Your task to perform on an android device: change the clock style Image 0: 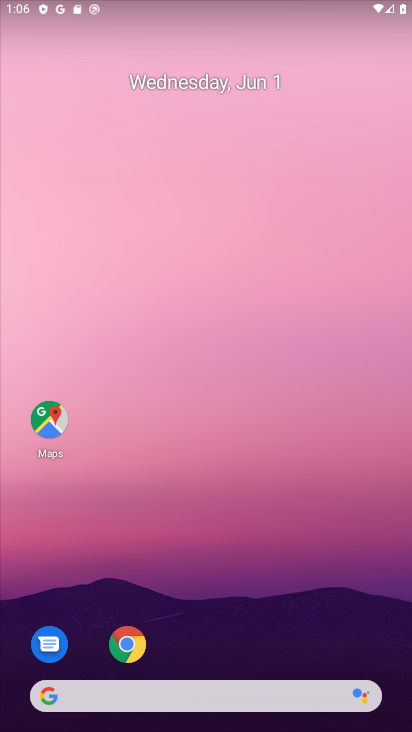
Step 0: press home button
Your task to perform on an android device: change the clock style Image 1: 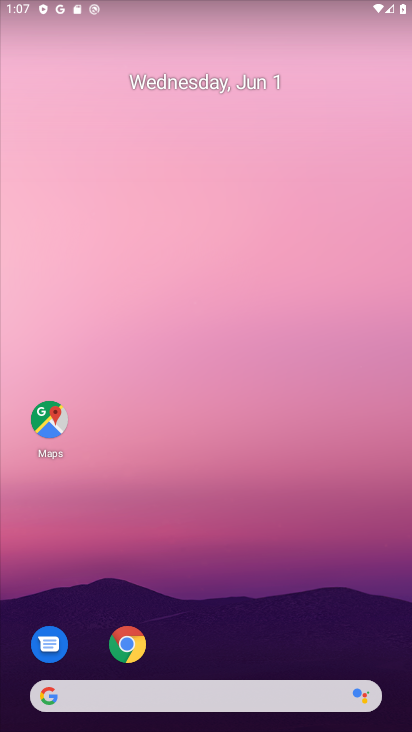
Step 1: drag from (158, 693) to (293, 69)
Your task to perform on an android device: change the clock style Image 2: 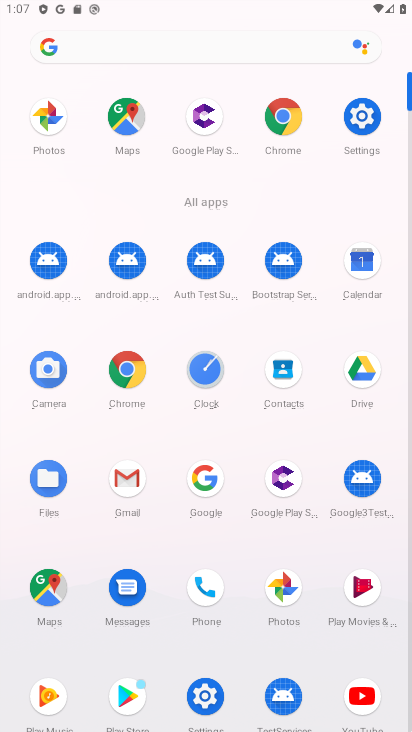
Step 2: click (208, 377)
Your task to perform on an android device: change the clock style Image 3: 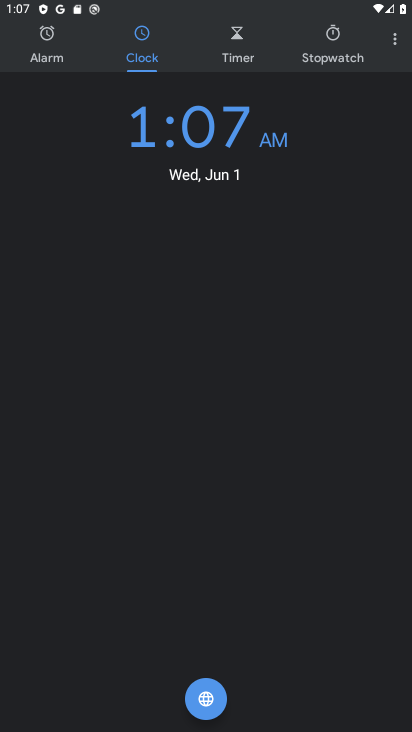
Step 3: click (390, 43)
Your task to perform on an android device: change the clock style Image 4: 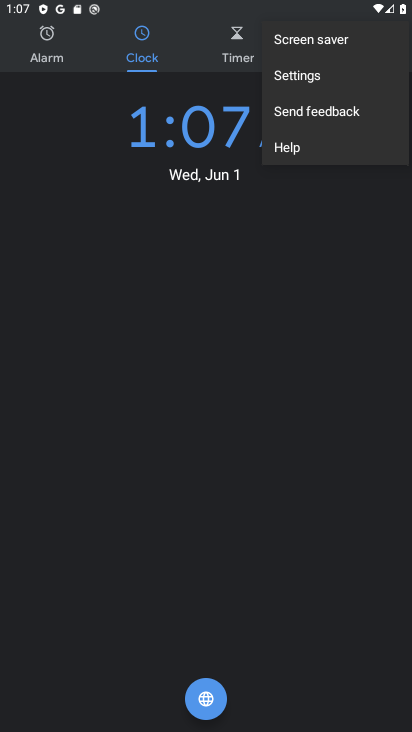
Step 4: click (301, 79)
Your task to perform on an android device: change the clock style Image 5: 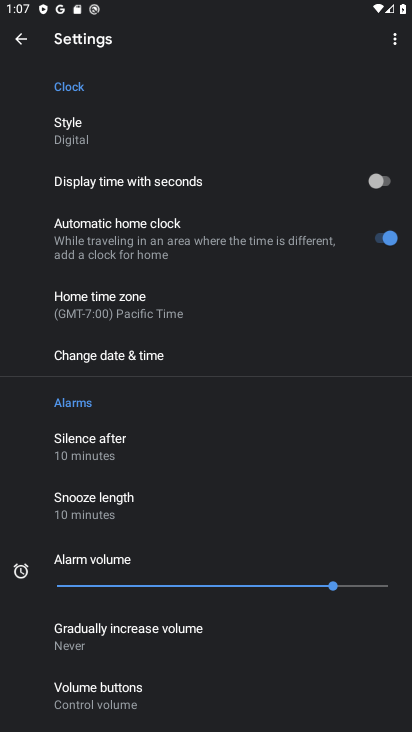
Step 5: click (75, 126)
Your task to perform on an android device: change the clock style Image 6: 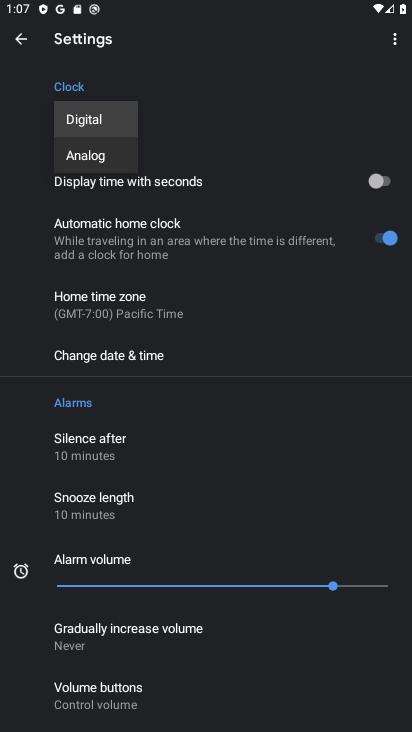
Step 6: click (92, 152)
Your task to perform on an android device: change the clock style Image 7: 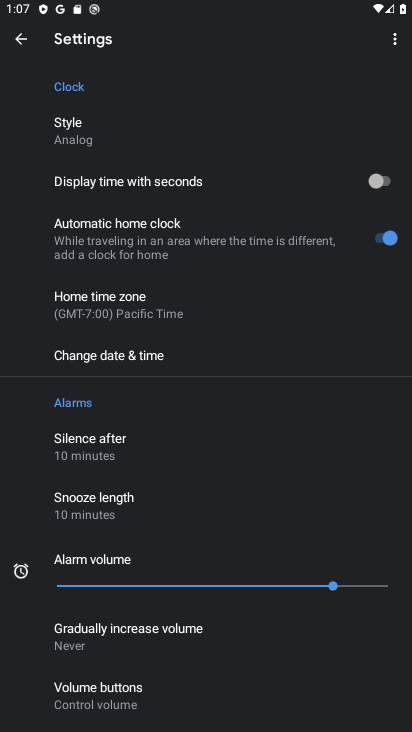
Step 7: task complete